Your task to perform on an android device: Open Reddit.com Image 0: 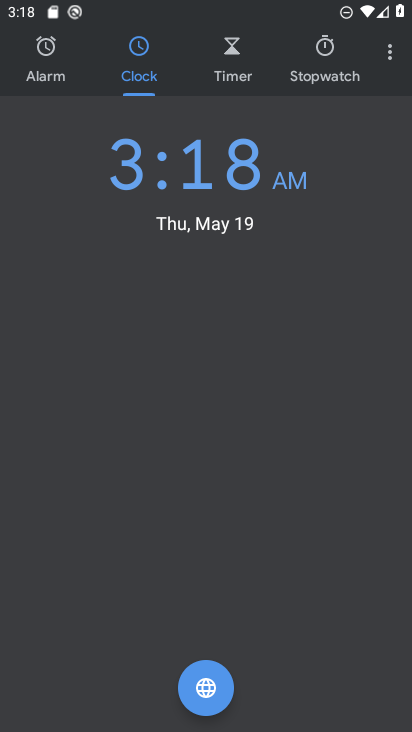
Step 0: press home button
Your task to perform on an android device: Open Reddit.com Image 1: 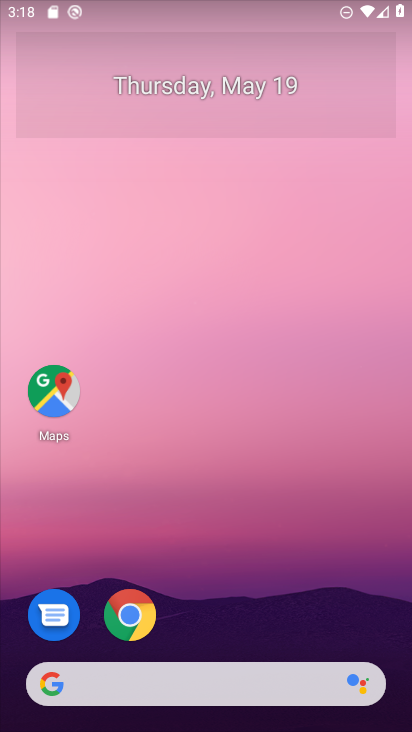
Step 1: drag from (228, 582) to (209, 291)
Your task to perform on an android device: Open Reddit.com Image 2: 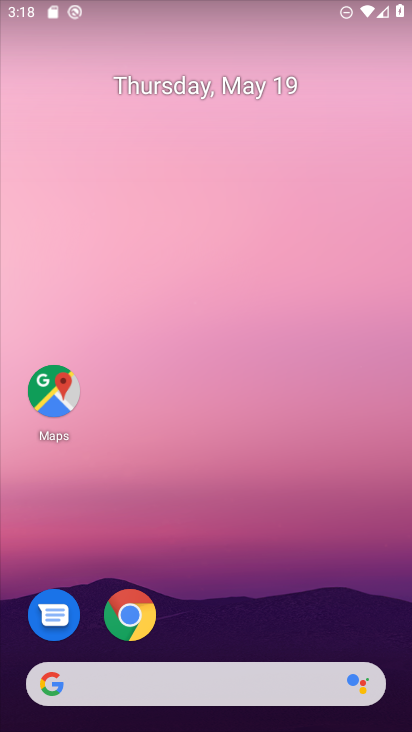
Step 2: drag from (214, 610) to (236, 232)
Your task to perform on an android device: Open Reddit.com Image 3: 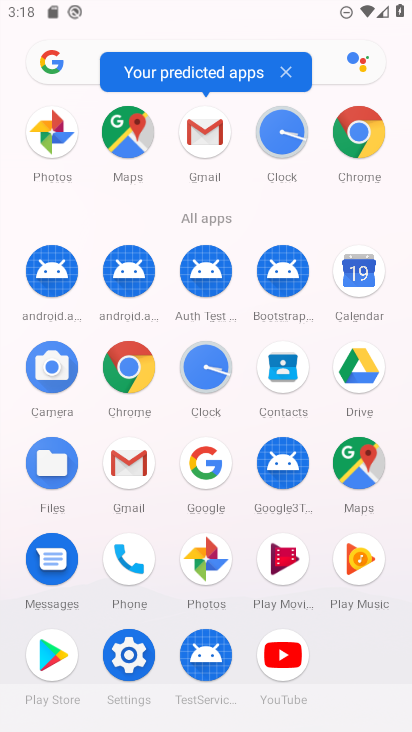
Step 3: click (135, 366)
Your task to perform on an android device: Open Reddit.com Image 4: 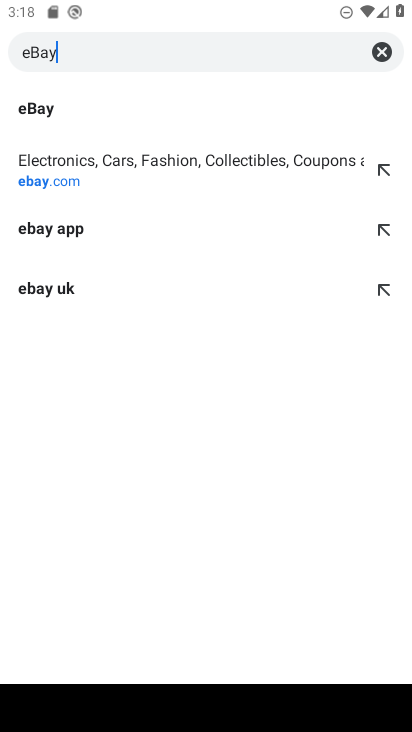
Step 4: click (384, 38)
Your task to perform on an android device: Open Reddit.com Image 5: 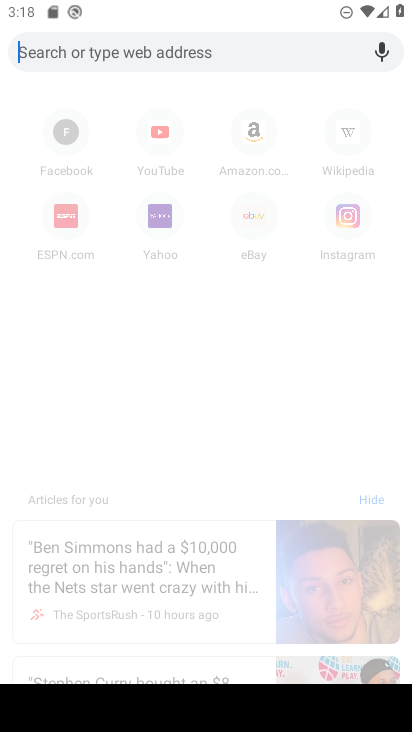
Step 5: click (271, 48)
Your task to perform on an android device: Open Reddit.com Image 6: 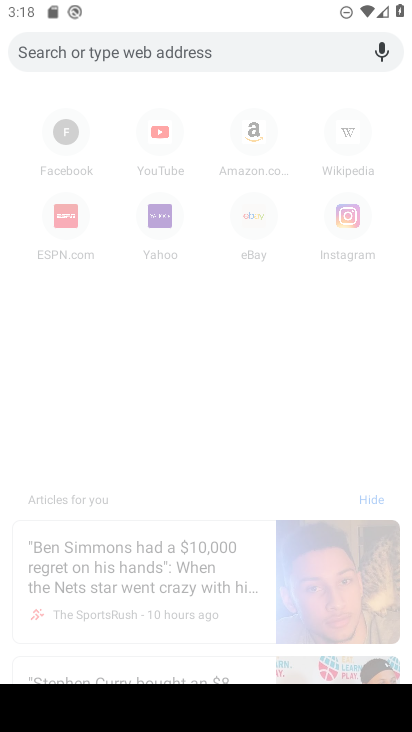
Step 6: click (207, 37)
Your task to perform on an android device: Open Reddit.com Image 7: 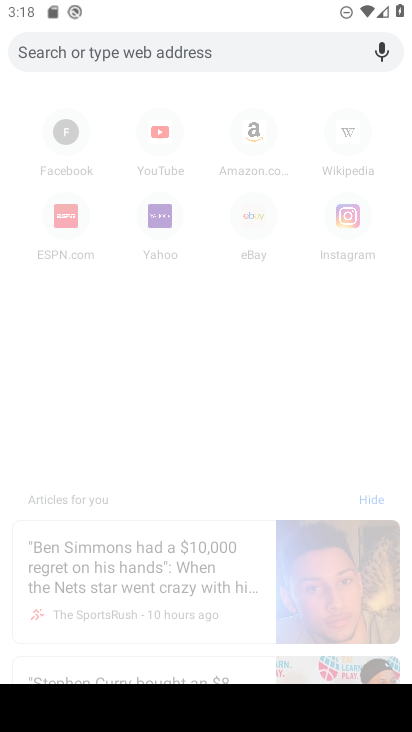
Step 7: type "Reddit.com"
Your task to perform on an android device: Open Reddit.com Image 8: 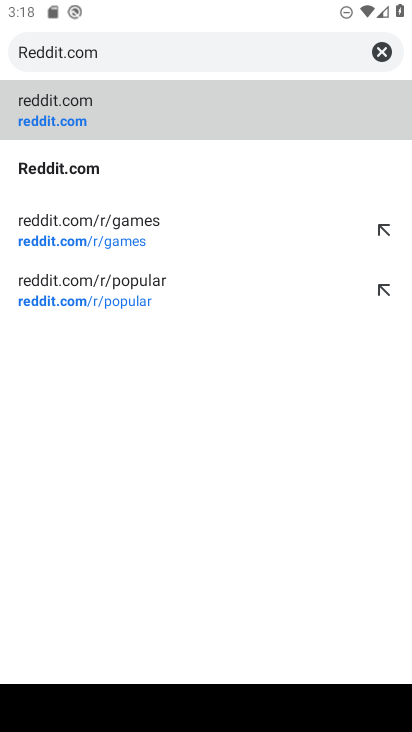
Step 8: click (282, 98)
Your task to perform on an android device: Open Reddit.com Image 9: 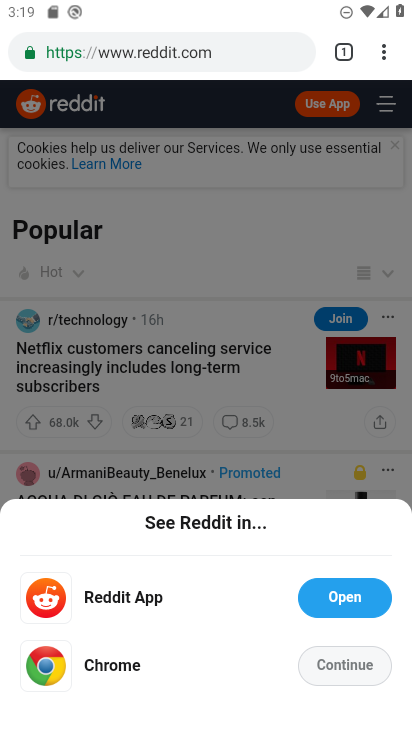
Step 9: task complete